Your task to perform on an android device: Look up the best rated hair dryer on Walmart. Image 0: 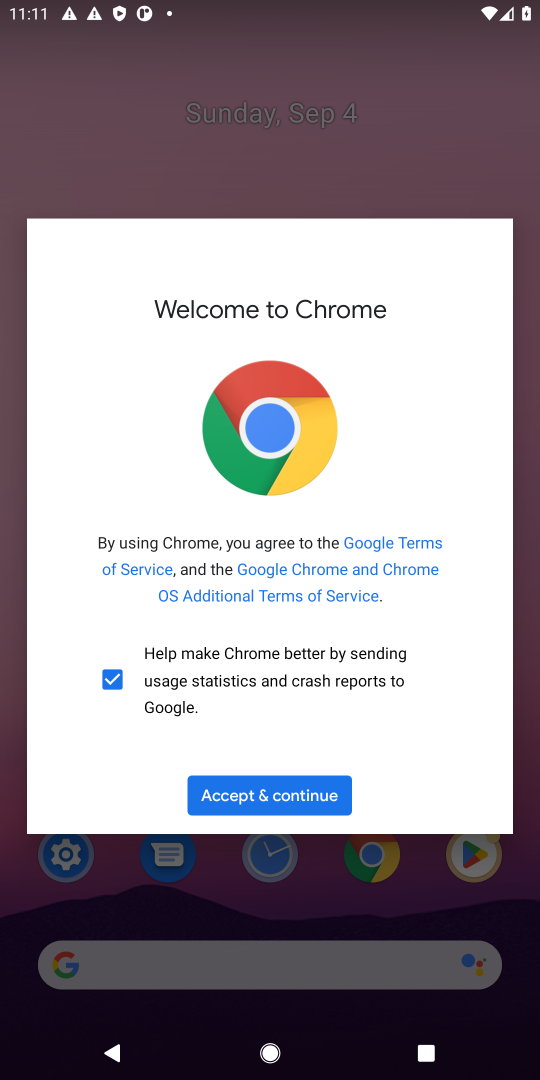
Step 0: press home button
Your task to perform on an android device: Look up the best rated hair dryer on Walmart. Image 1: 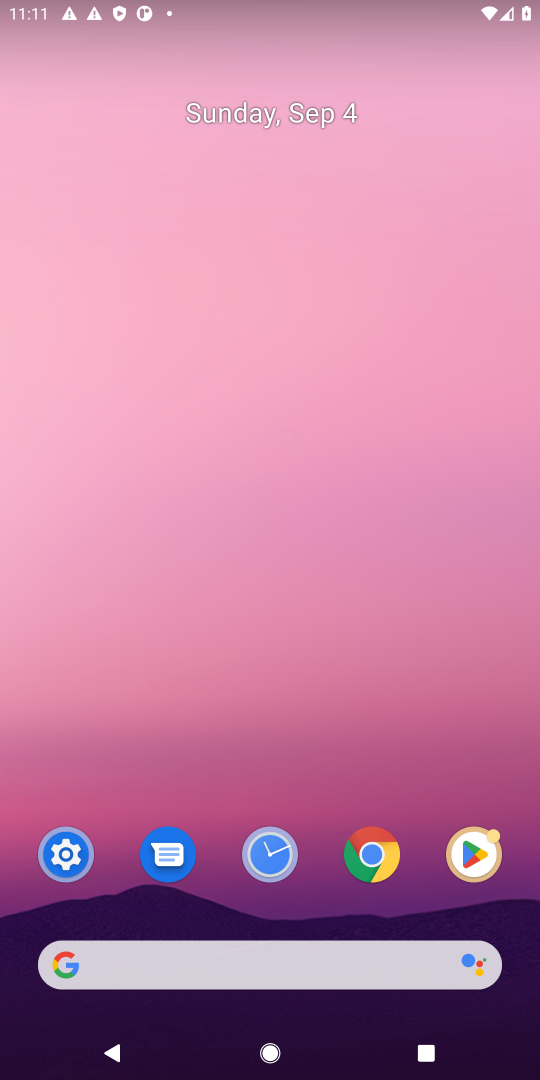
Step 1: click (387, 963)
Your task to perform on an android device: Look up the best rated hair dryer on Walmart. Image 2: 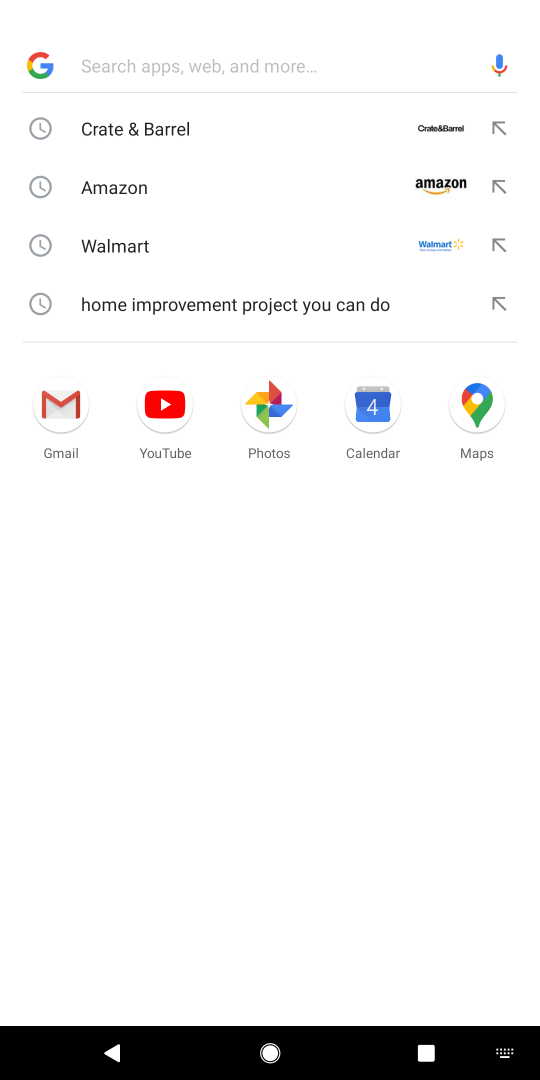
Step 2: press enter
Your task to perform on an android device: Look up the best rated hair dryer on Walmart. Image 3: 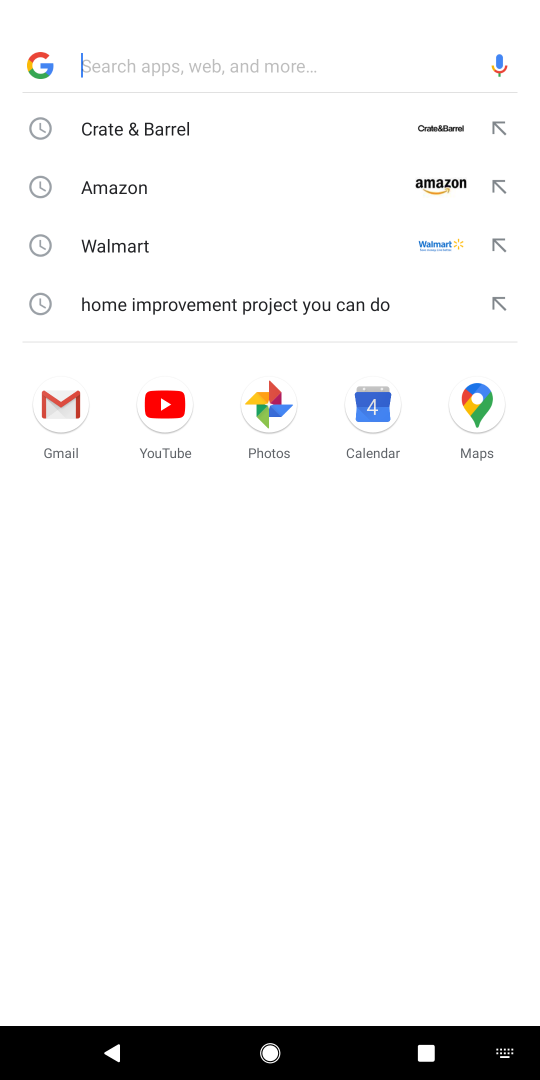
Step 3: type "walmart"
Your task to perform on an android device: Look up the best rated hair dryer on Walmart. Image 4: 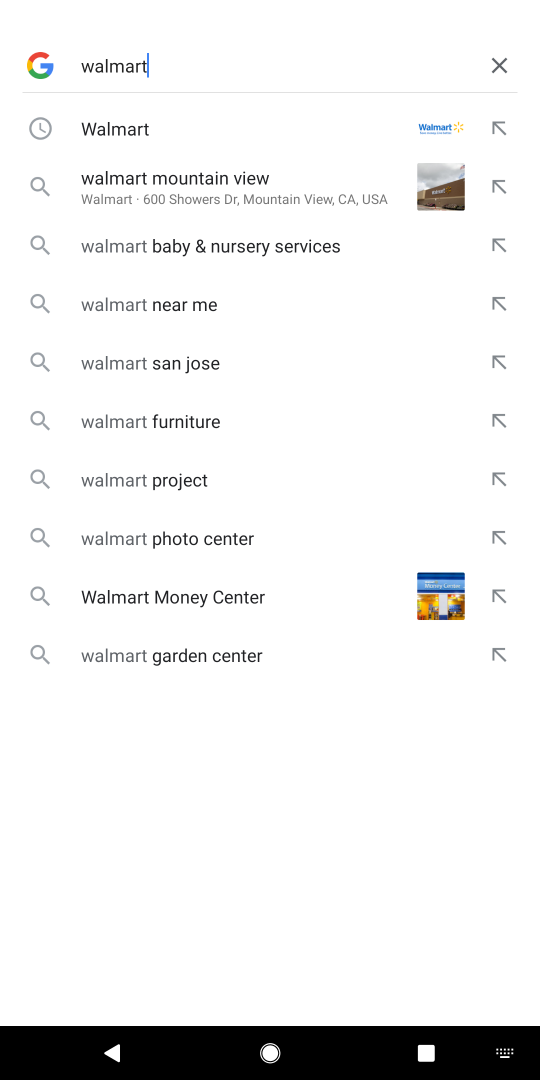
Step 4: click (106, 127)
Your task to perform on an android device: Look up the best rated hair dryer on Walmart. Image 5: 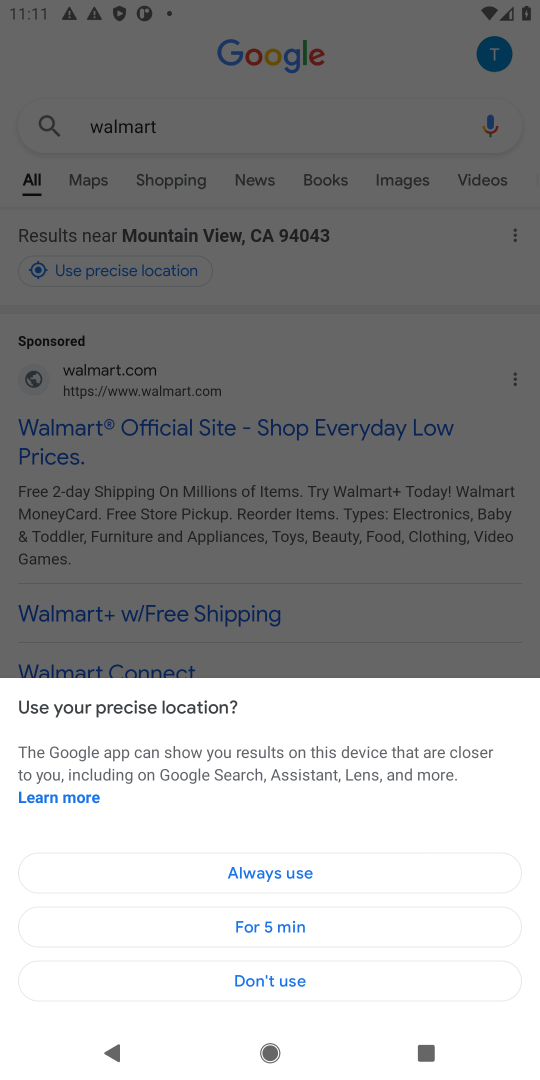
Step 5: click (328, 980)
Your task to perform on an android device: Look up the best rated hair dryer on Walmart. Image 6: 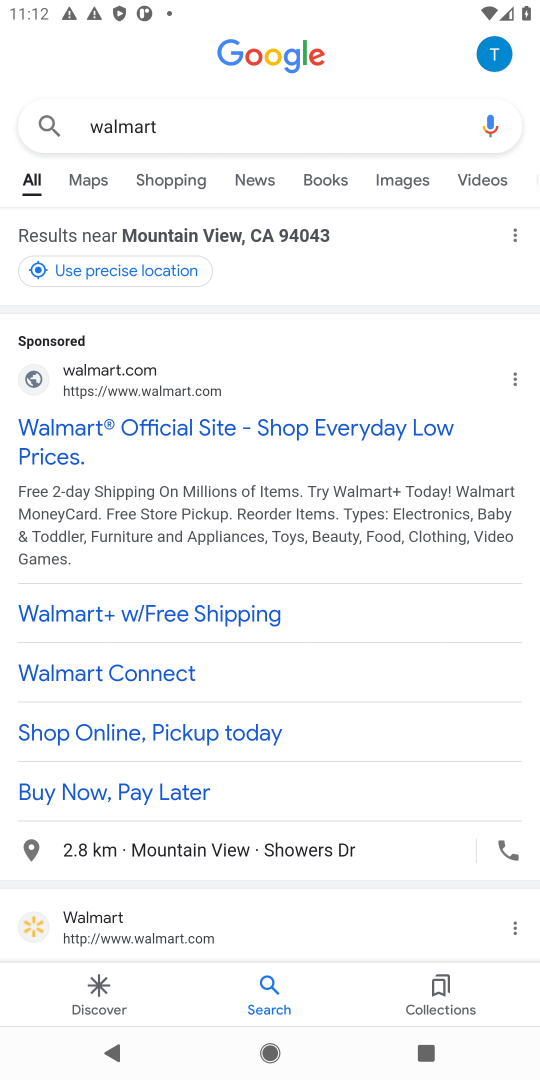
Step 6: click (194, 432)
Your task to perform on an android device: Look up the best rated hair dryer on Walmart. Image 7: 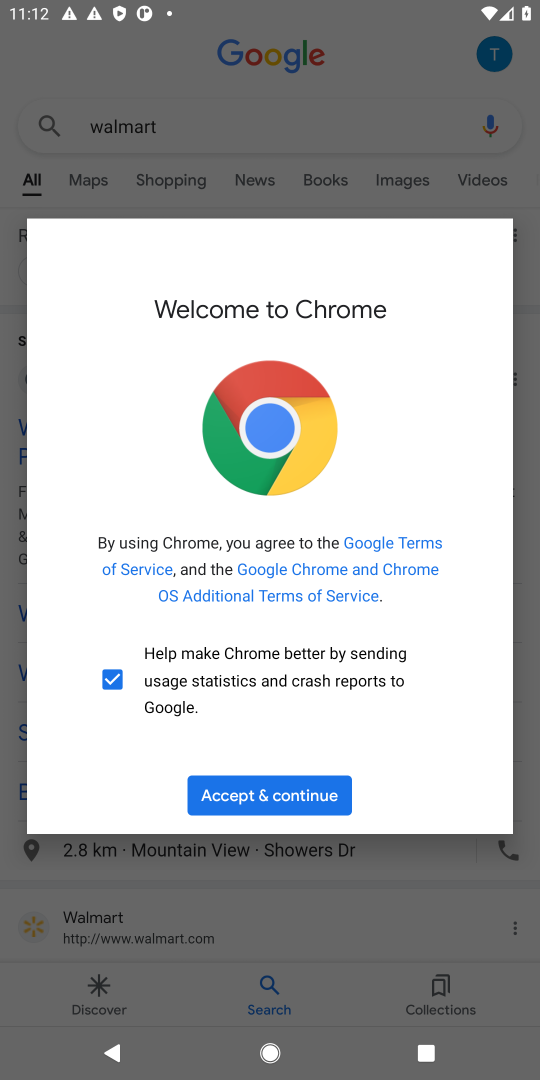
Step 7: click (287, 788)
Your task to perform on an android device: Look up the best rated hair dryer on Walmart. Image 8: 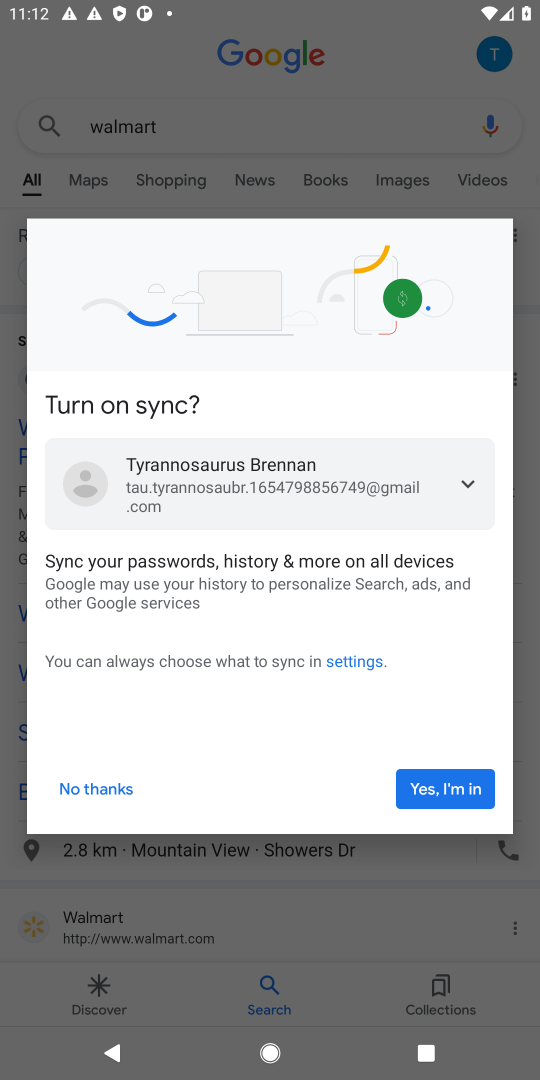
Step 8: click (458, 786)
Your task to perform on an android device: Look up the best rated hair dryer on Walmart. Image 9: 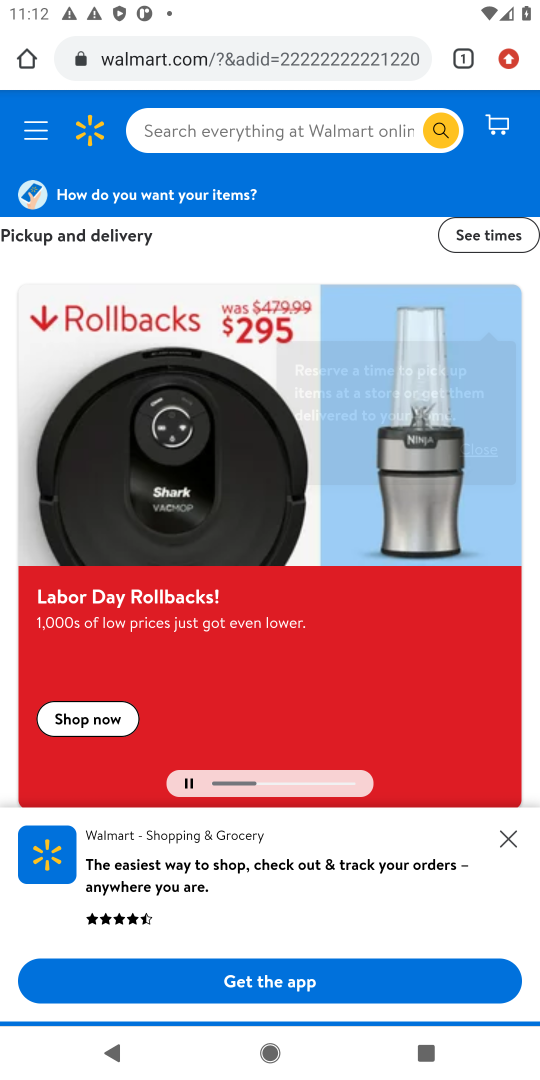
Step 9: click (208, 137)
Your task to perform on an android device: Look up the best rated hair dryer on Walmart. Image 10: 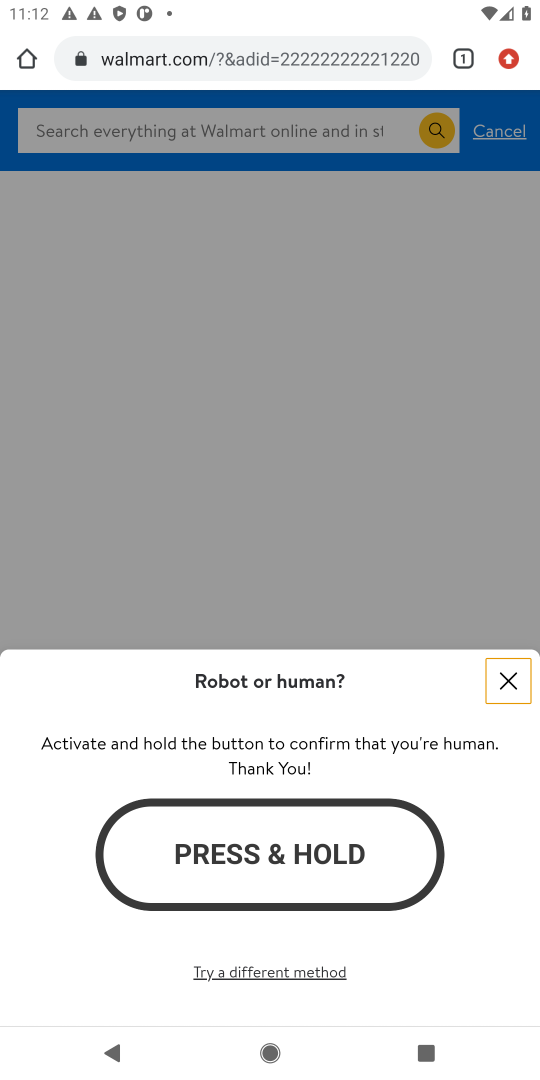
Step 10: click (512, 686)
Your task to perform on an android device: Look up the best rated hair dryer on Walmart. Image 11: 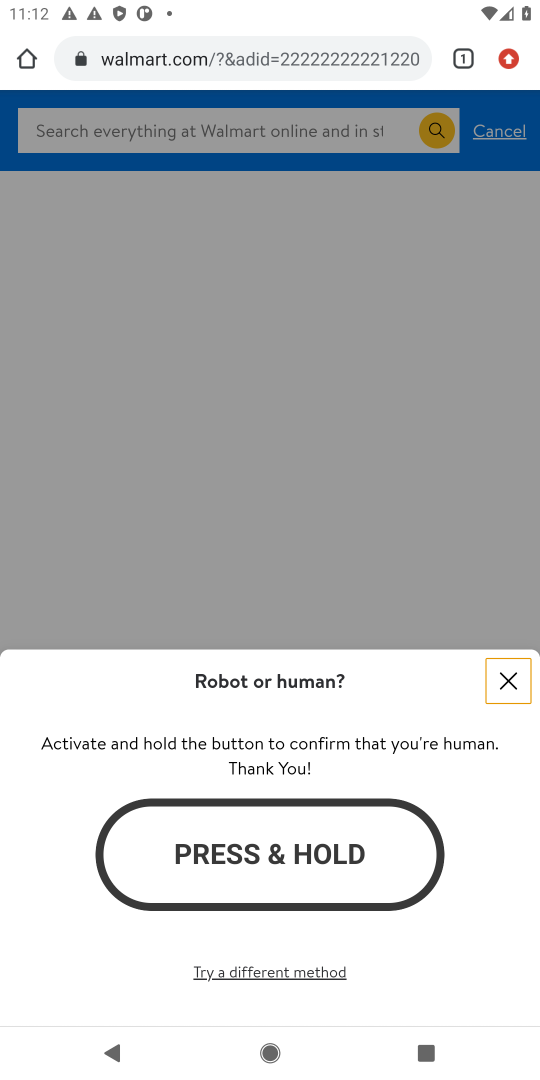
Step 11: click (508, 682)
Your task to perform on an android device: Look up the best rated hair dryer on Walmart. Image 12: 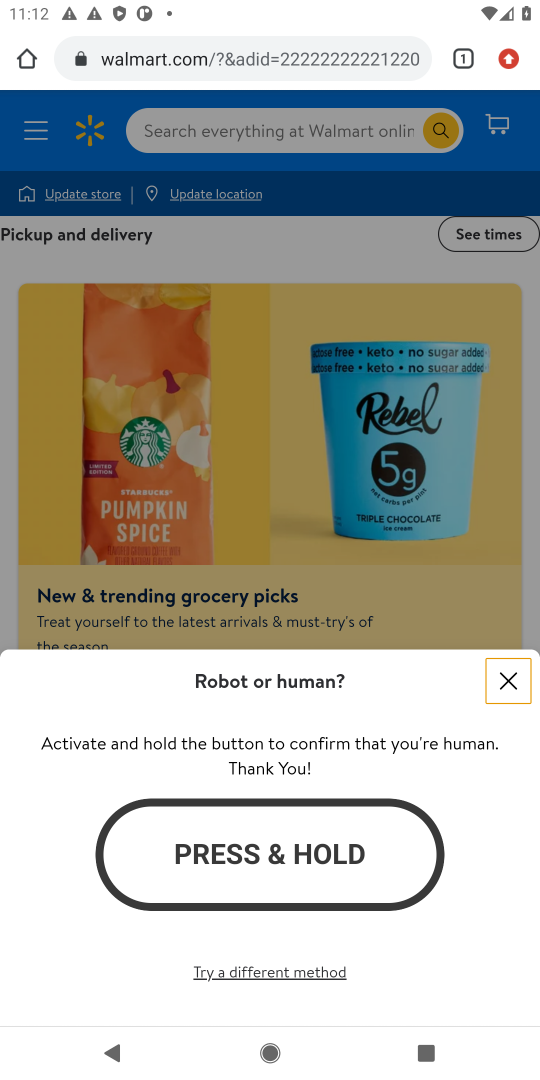
Step 12: click (523, 686)
Your task to perform on an android device: Look up the best rated hair dryer on Walmart. Image 13: 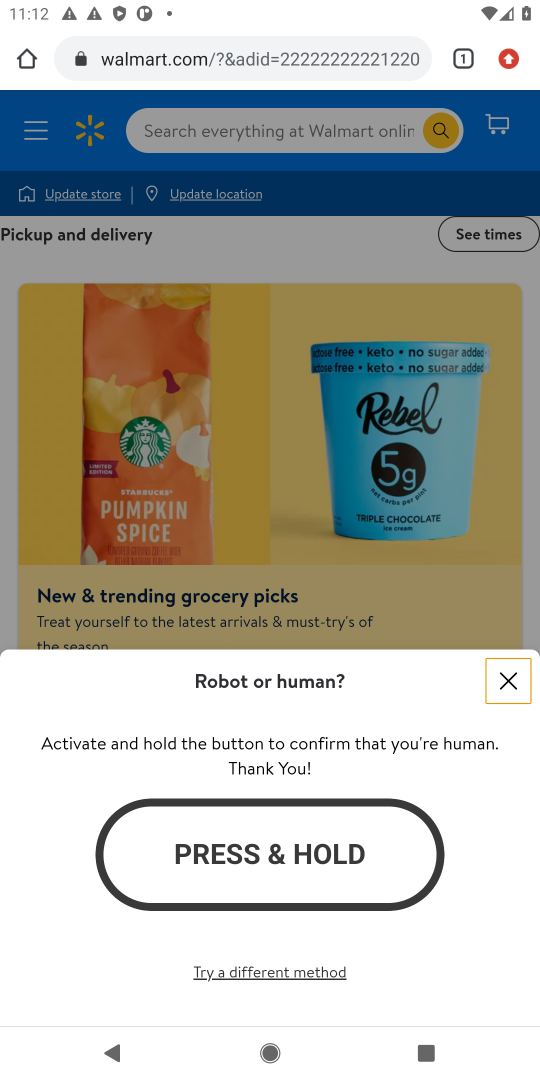
Step 13: type "best rated hair dryer"
Your task to perform on an android device: Look up the best rated hair dryer on Walmart. Image 14: 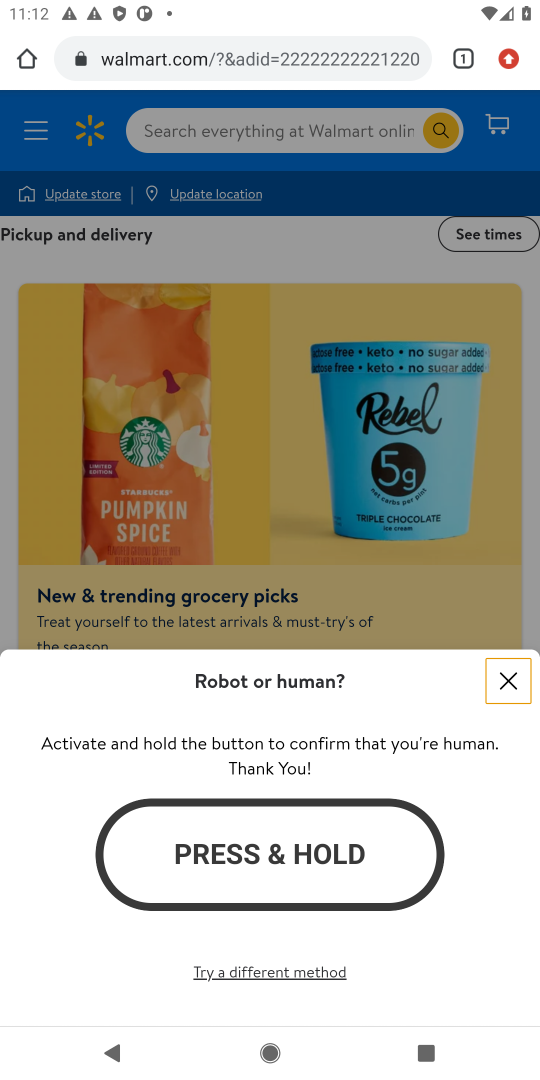
Step 14: click (498, 682)
Your task to perform on an android device: Look up the best rated hair dryer on Walmart. Image 15: 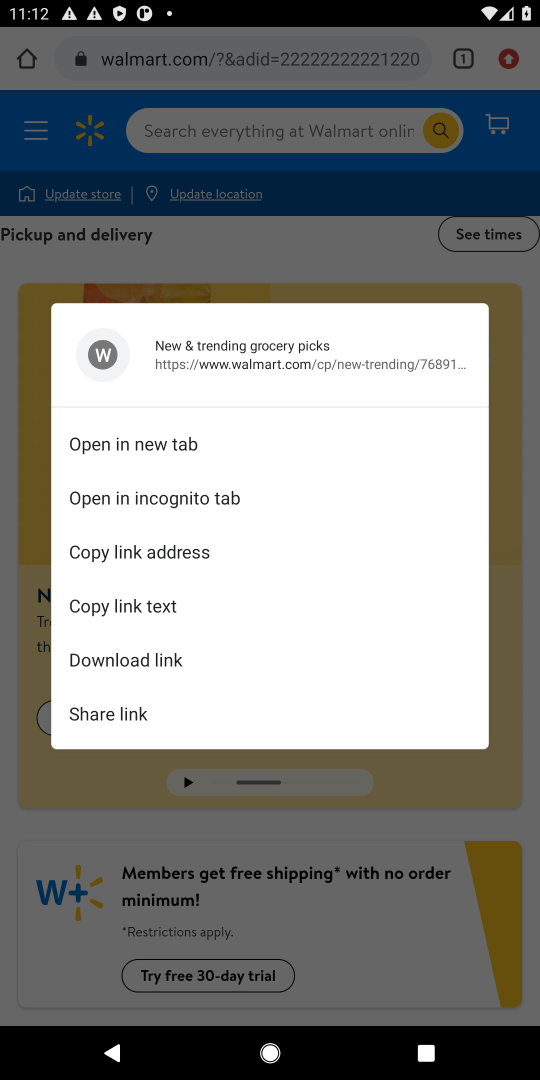
Step 15: click (528, 471)
Your task to perform on an android device: Look up the best rated hair dryer on Walmart. Image 16: 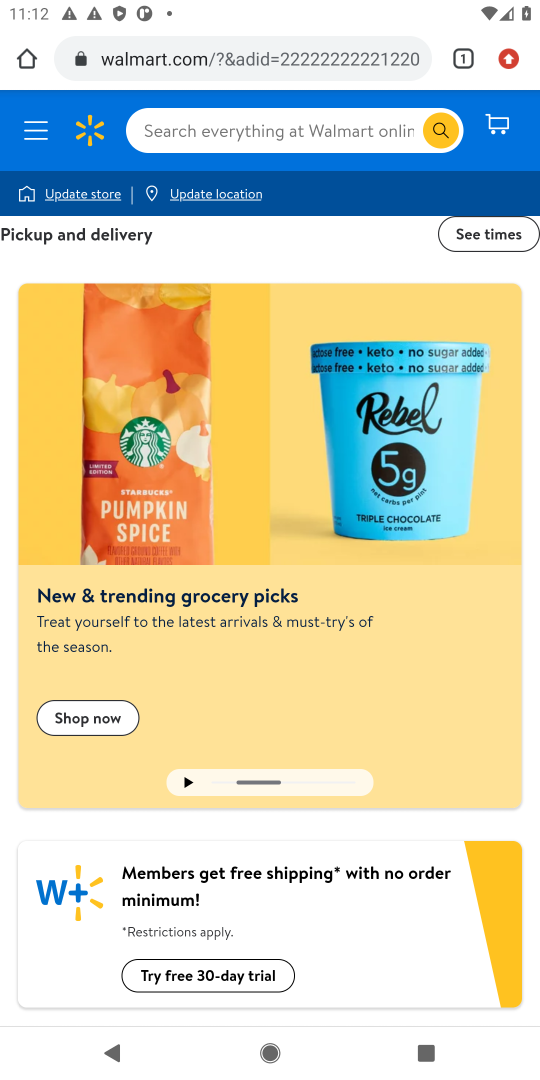
Step 16: click (211, 126)
Your task to perform on an android device: Look up the best rated hair dryer on Walmart. Image 17: 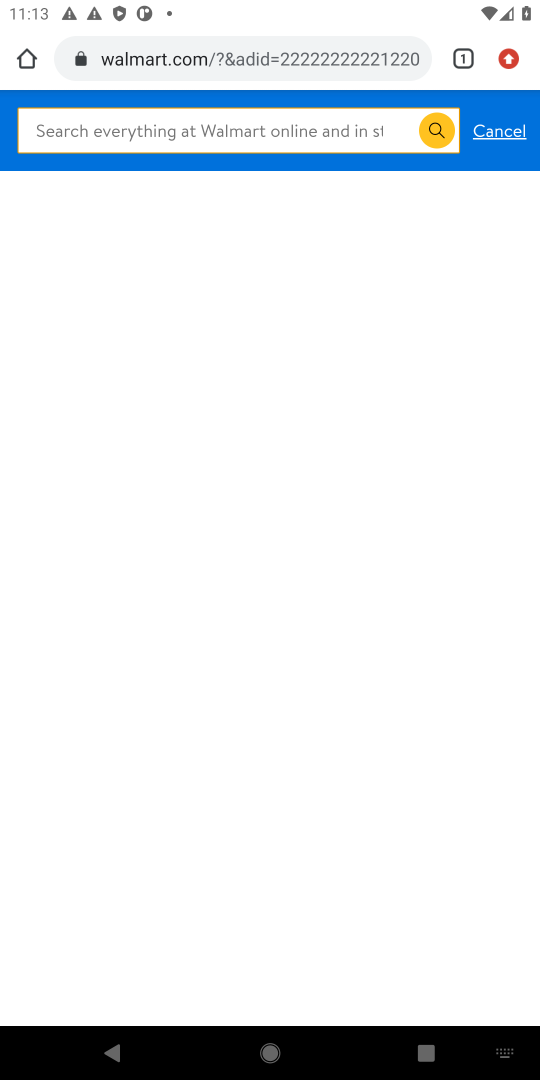
Step 17: press enter
Your task to perform on an android device: Look up the best rated hair dryer on Walmart. Image 18: 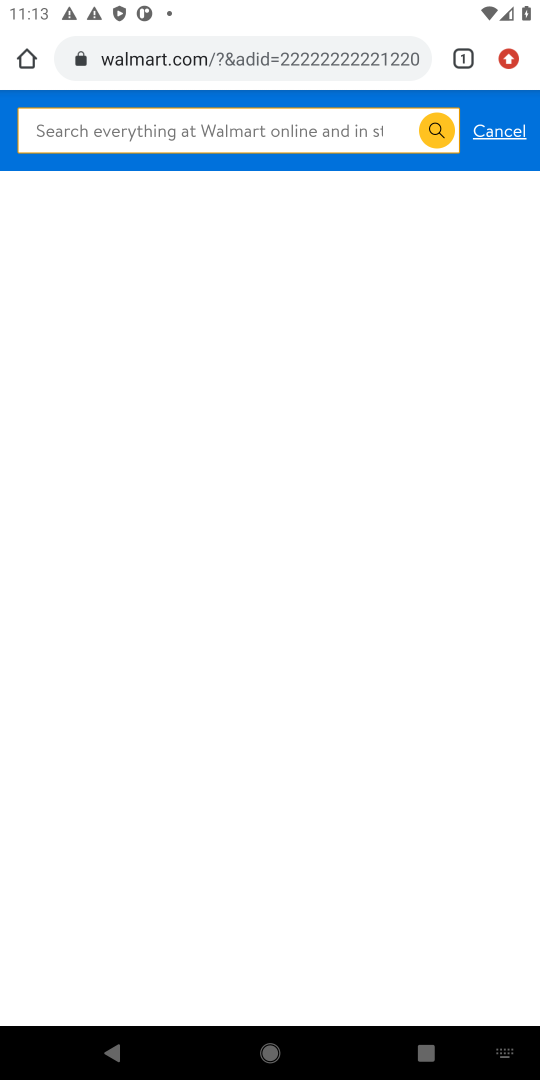
Step 18: type "best rated hair dryer"
Your task to perform on an android device: Look up the best rated hair dryer on Walmart. Image 19: 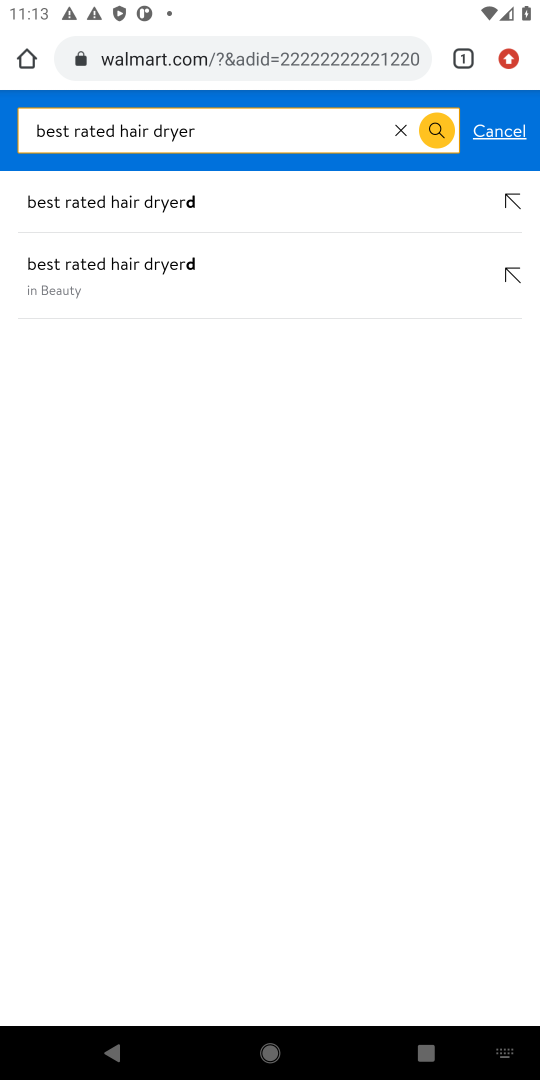
Step 19: click (436, 124)
Your task to perform on an android device: Look up the best rated hair dryer on Walmart. Image 20: 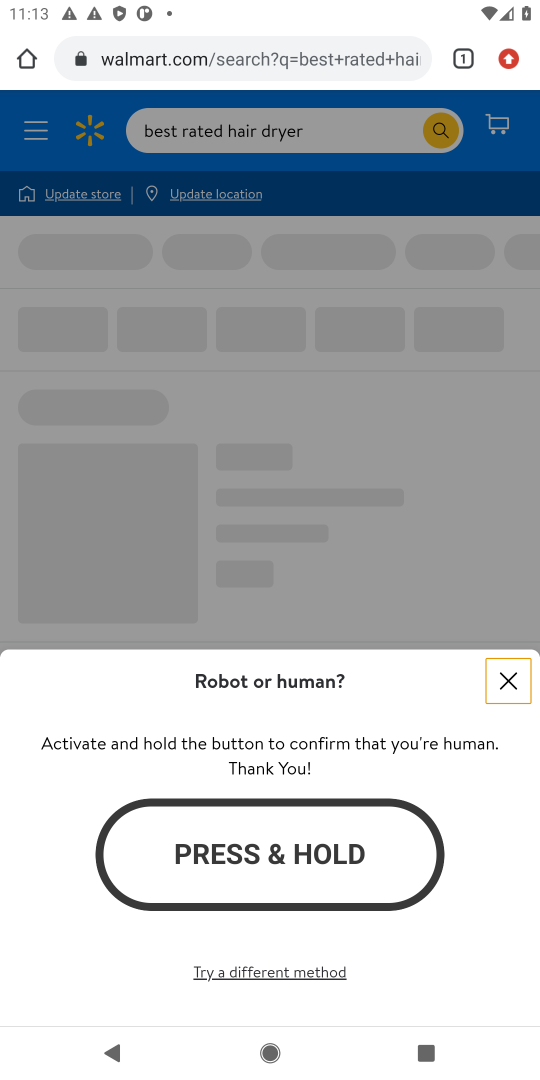
Step 20: click (507, 683)
Your task to perform on an android device: Look up the best rated hair dryer on Walmart. Image 21: 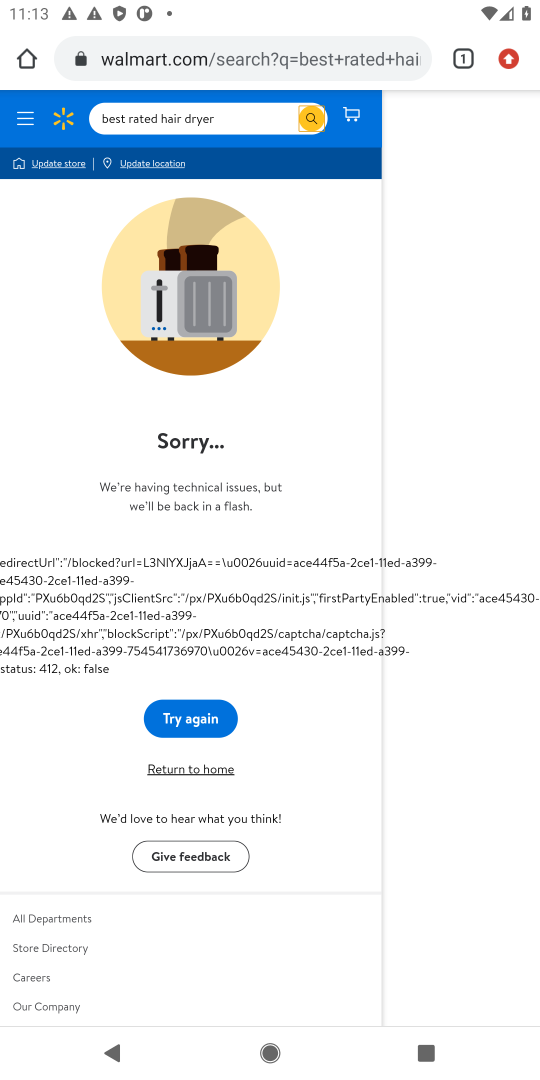
Step 21: task complete